Your task to perform on an android device: Go to location settings Image 0: 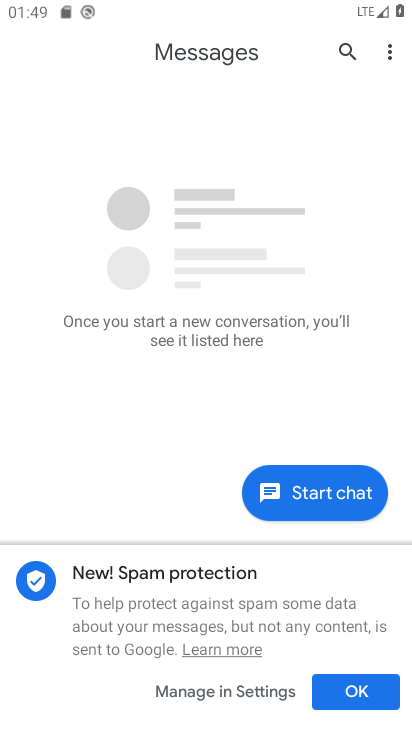
Step 0: press home button
Your task to perform on an android device: Go to location settings Image 1: 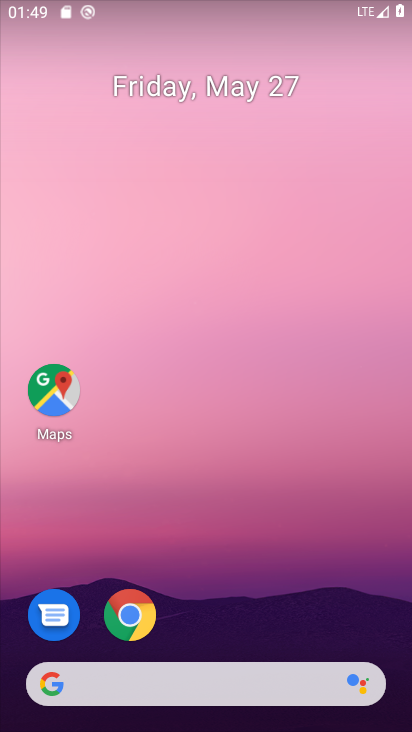
Step 1: drag from (357, 597) to (369, 217)
Your task to perform on an android device: Go to location settings Image 2: 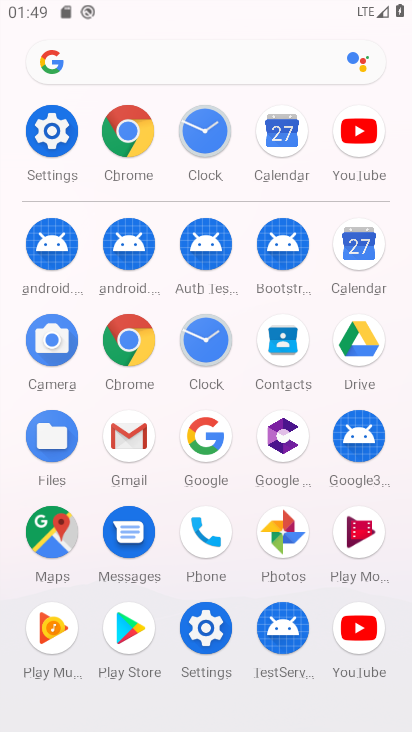
Step 2: click (206, 635)
Your task to perform on an android device: Go to location settings Image 3: 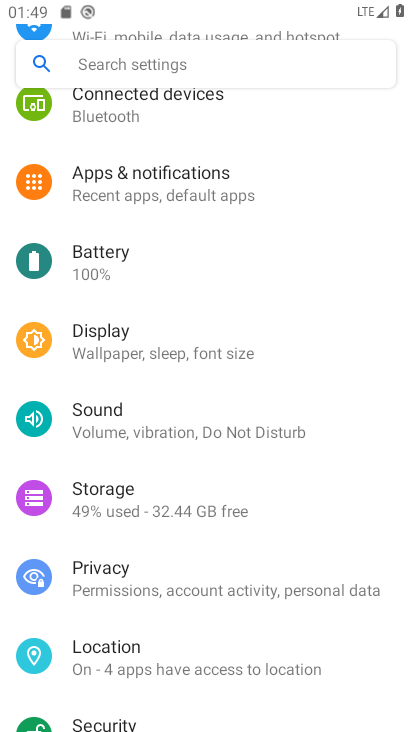
Step 3: drag from (349, 590) to (349, 538)
Your task to perform on an android device: Go to location settings Image 4: 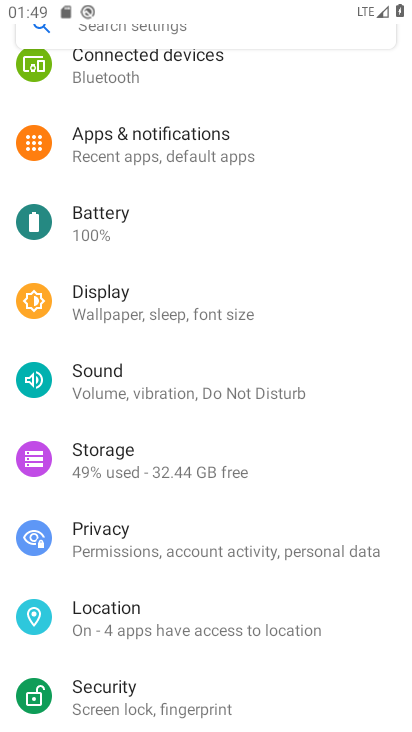
Step 4: drag from (347, 638) to (344, 509)
Your task to perform on an android device: Go to location settings Image 5: 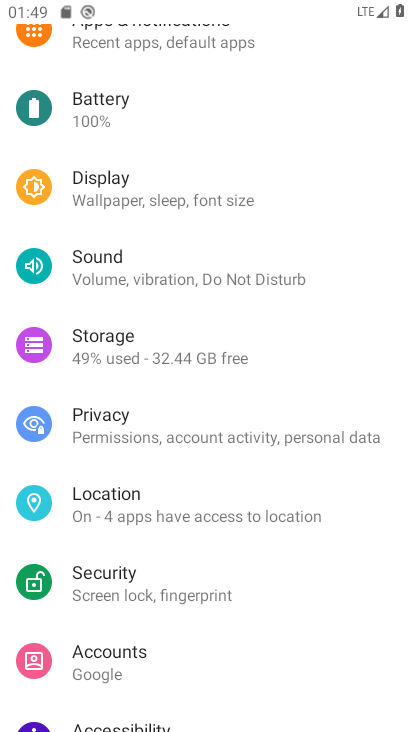
Step 5: drag from (351, 621) to (361, 483)
Your task to perform on an android device: Go to location settings Image 6: 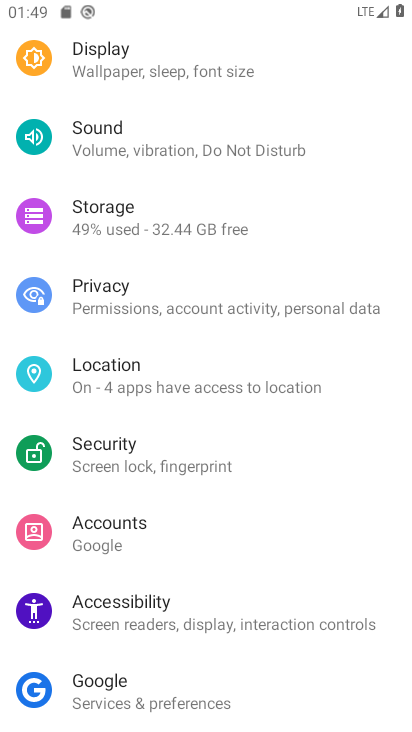
Step 6: drag from (360, 652) to (362, 504)
Your task to perform on an android device: Go to location settings Image 7: 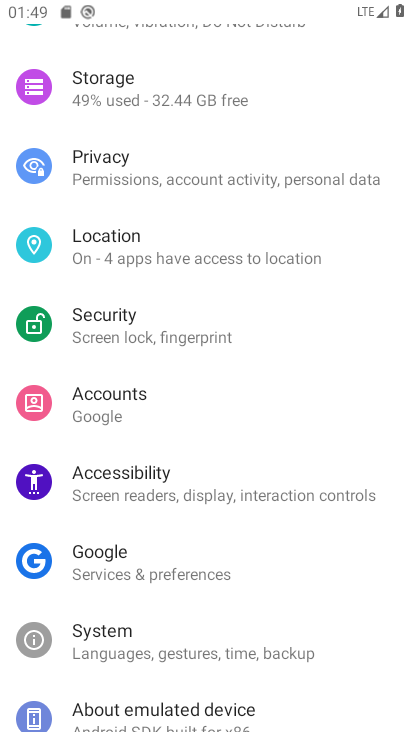
Step 7: drag from (365, 629) to (359, 489)
Your task to perform on an android device: Go to location settings Image 8: 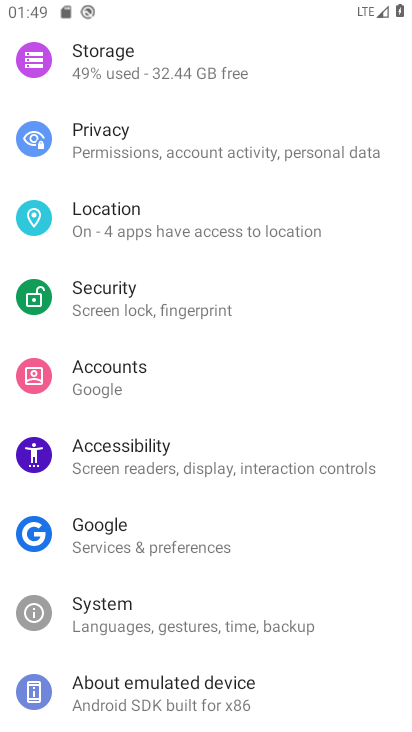
Step 8: drag from (360, 328) to (353, 409)
Your task to perform on an android device: Go to location settings Image 9: 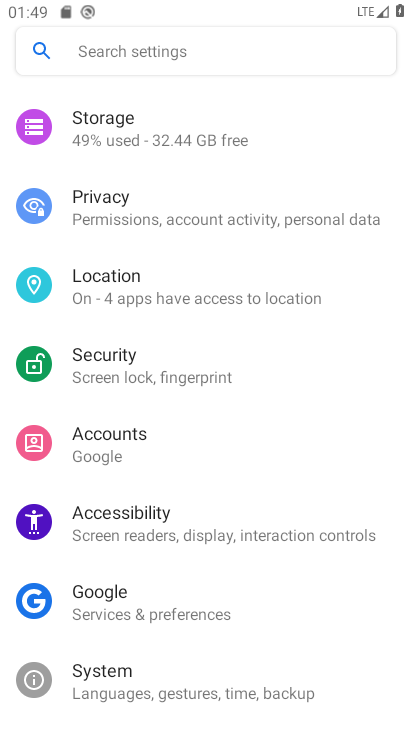
Step 9: drag from (345, 347) to (340, 463)
Your task to perform on an android device: Go to location settings Image 10: 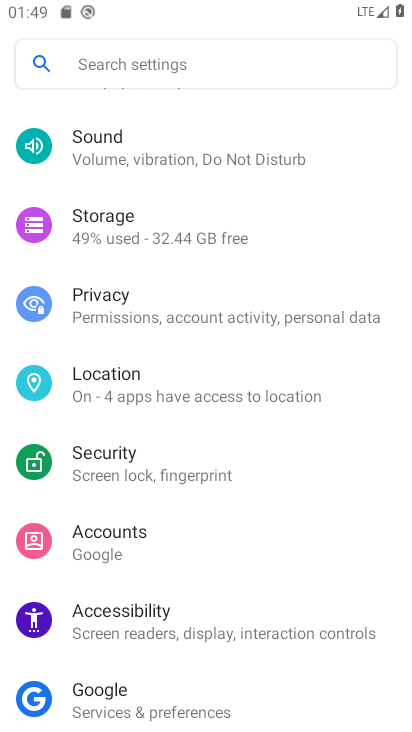
Step 10: drag from (354, 360) to (361, 481)
Your task to perform on an android device: Go to location settings Image 11: 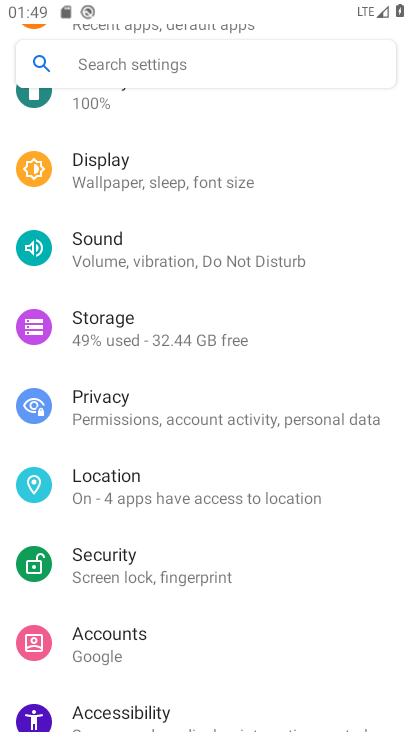
Step 11: drag from (369, 315) to (369, 448)
Your task to perform on an android device: Go to location settings Image 12: 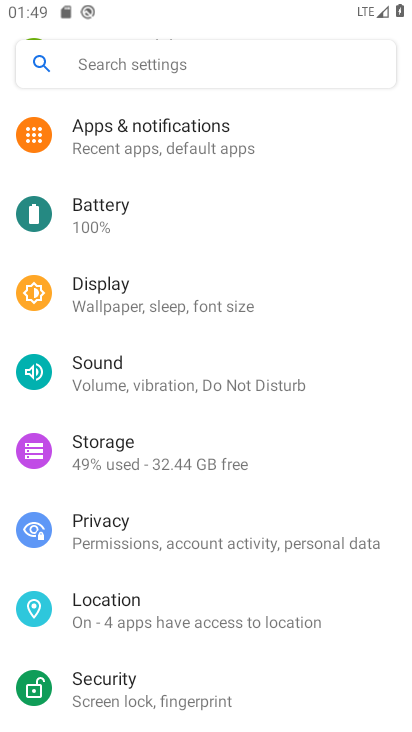
Step 12: click (239, 616)
Your task to perform on an android device: Go to location settings Image 13: 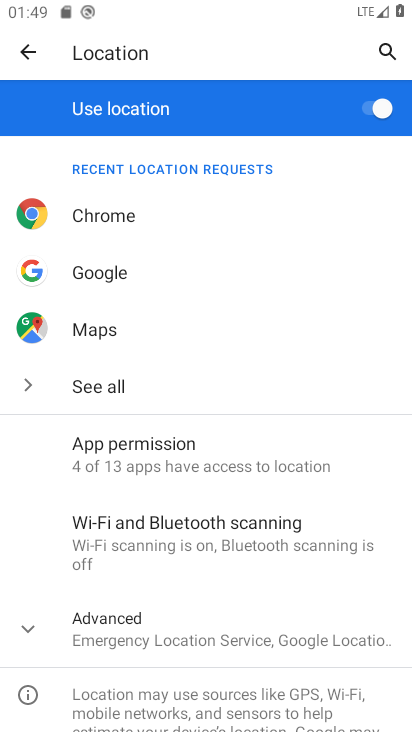
Step 13: task complete